Your task to perform on an android device: Open Google Chrome Image 0: 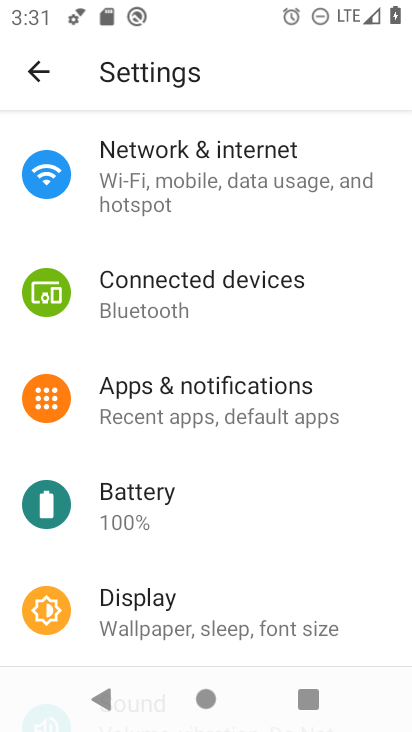
Step 0: press home button
Your task to perform on an android device: Open Google Chrome Image 1: 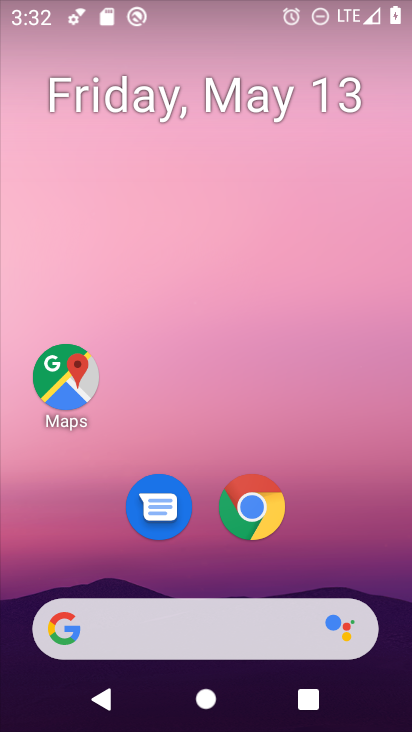
Step 1: click (271, 518)
Your task to perform on an android device: Open Google Chrome Image 2: 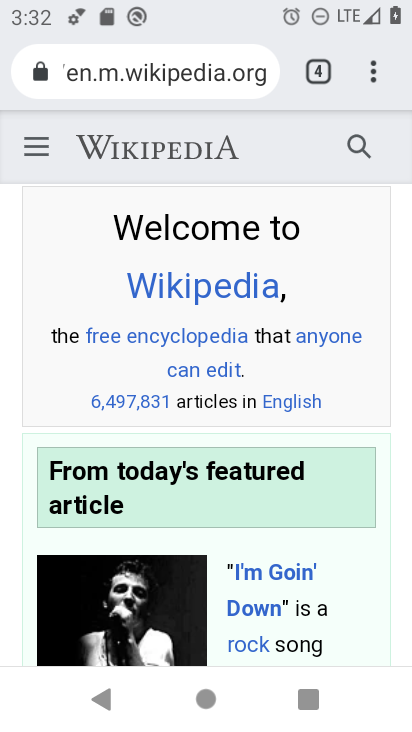
Step 2: task complete